Your task to perform on an android device: uninstall "Chime – Mobile Banking" Image 0: 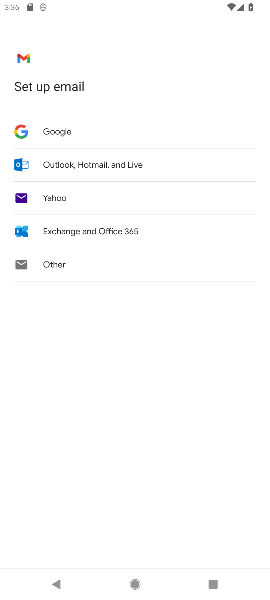
Step 0: press back button
Your task to perform on an android device: uninstall "Chime – Mobile Banking" Image 1: 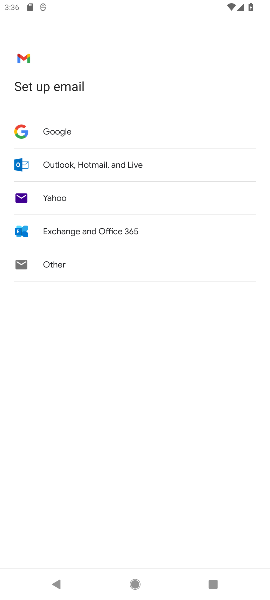
Step 1: press back button
Your task to perform on an android device: uninstall "Chime – Mobile Banking" Image 2: 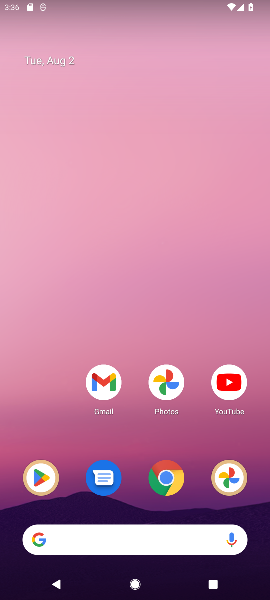
Step 2: drag from (162, 558) to (144, 62)
Your task to perform on an android device: uninstall "Chime – Mobile Banking" Image 3: 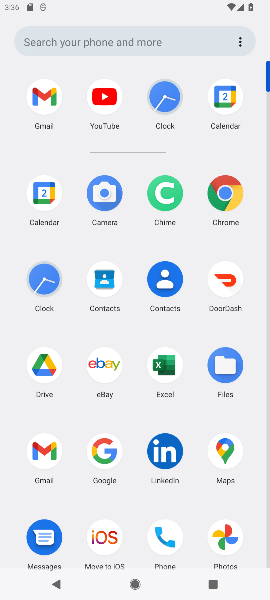
Step 3: drag from (176, 81) to (176, 23)
Your task to perform on an android device: uninstall "Chime – Mobile Banking" Image 4: 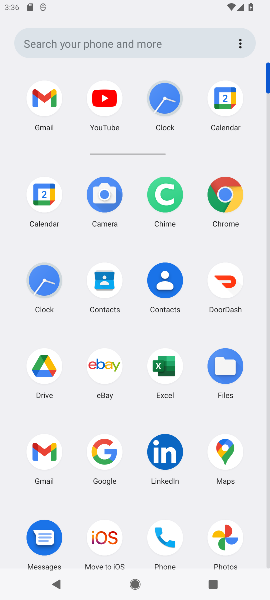
Step 4: drag from (115, 494) to (127, 242)
Your task to perform on an android device: uninstall "Chime – Mobile Banking" Image 5: 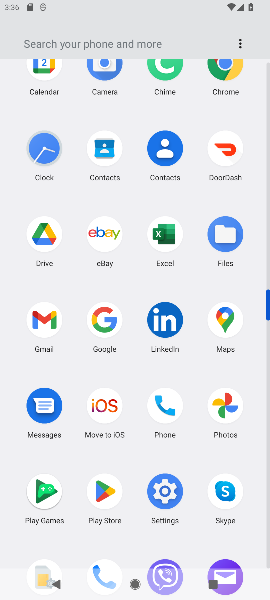
Step 5: drag from (160, 388) to (150, 157)
Your task to perform on an android device: uninstall "Chime – Mobile Banking" Image 6: 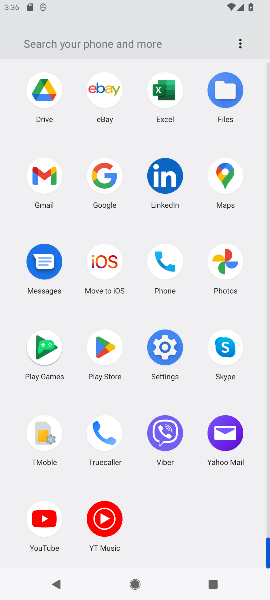
Step 6: click (104, 367)
Your task to perform on an android device: uninstall "Chime – Mobile Banking" Image 7: 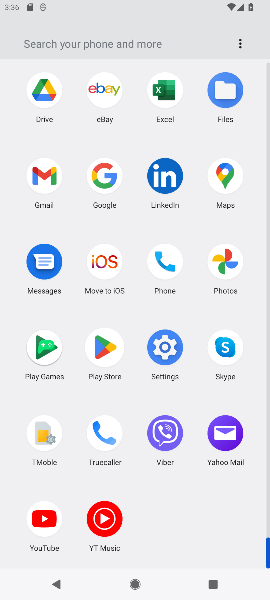
Step 7: click (103, 367)
Your task to perform on an android device: uninstall "Chime – Mobile Banking" Image 8: 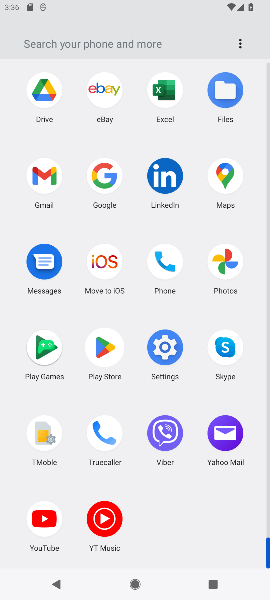
Step 8: click (103, 367)
Your task to perform on an android device: uninstall "Chime – Mobile Banking" Image 9: 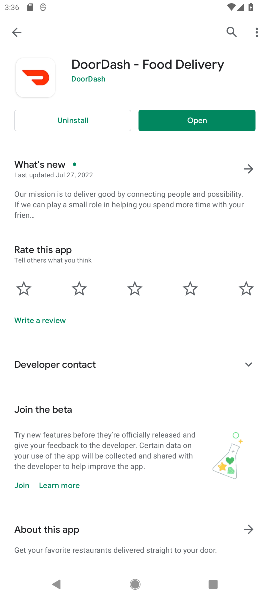
Step 9: click (19, 31)
Your task to perform on an android device: uninstall "Chime – Mobile Banking" Image 10: 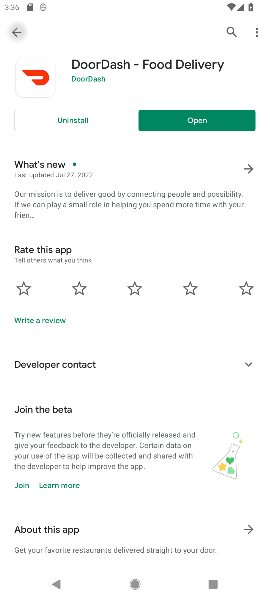
Step 10: click (21, 30)
Your task to perform on an android device: uninstall "Chime – Mobile Banking" Image 11: 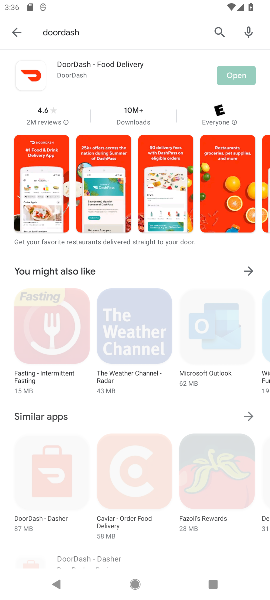
Step 11: click (21, 30)
Your task to perform on an android device: uninstall "Chime – Mobile Banking" Image 12: 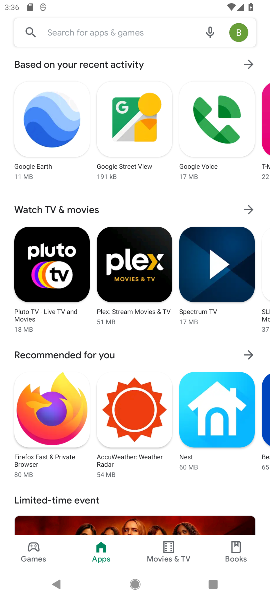
Step 12: click (76, 32)
Your task to perform on an android device: uninstall "Chime – Mobile Banking" Image 13: 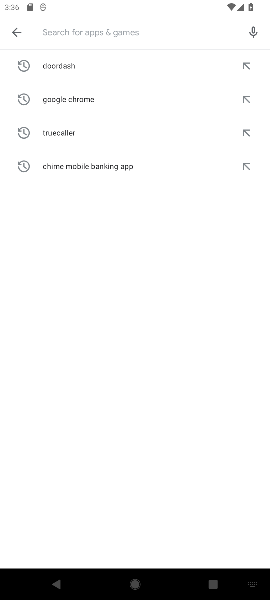
Step 13: click (76, 32)
Your task to perform on an android device: uninstall "Chime – Mobile Banking" Image 14: 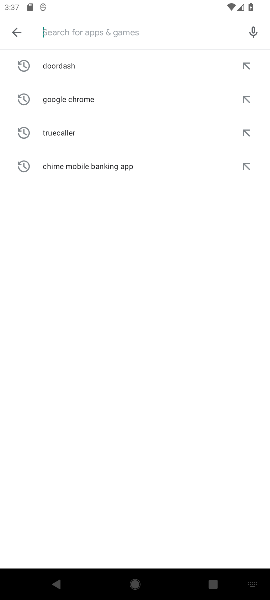
Step 14: type "chime- mobile banking"
Your task to perform on an android device: uninstall "Chime – Mobile Banking" Image 15: 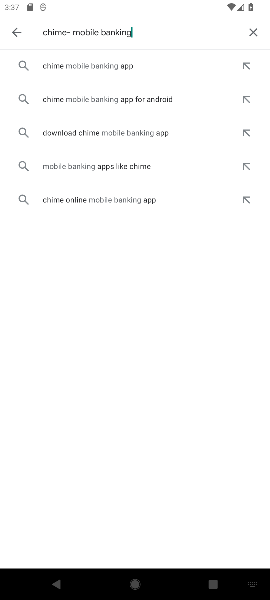
Step 15: click (115, 60)
Your task to perform on an android device: uninstall "Chime – Mobile Banking" Image 16: 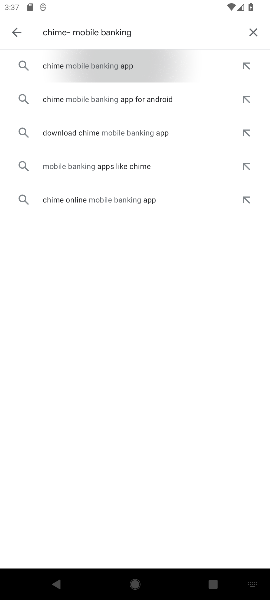
Step 16: click (117, 59)
Your task to perform on an android device: uninstall "Chime – Mobile Banking" Image 17: 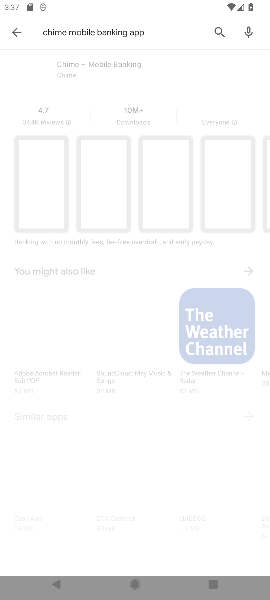
Step 17: click (118, 59)
Your task to perform on an android device: uninstall "Chime – Mobile Banking" Image 18: 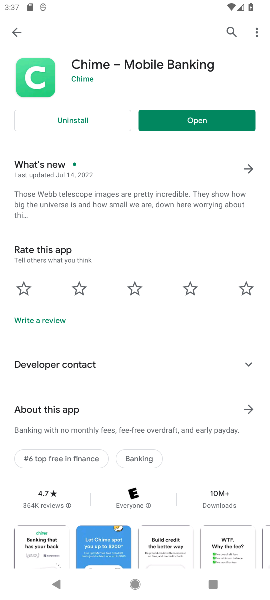
Step 18: click (65, 126)
Your task to perform on an android device: uninstall "Chime – Mobile Banking" Image 19: 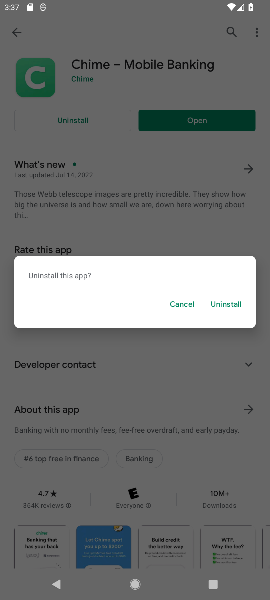
Step 19: click (226, 299)
Your task to perform on an android device: uninstall "Chime – Mobile Banking" Image 20: 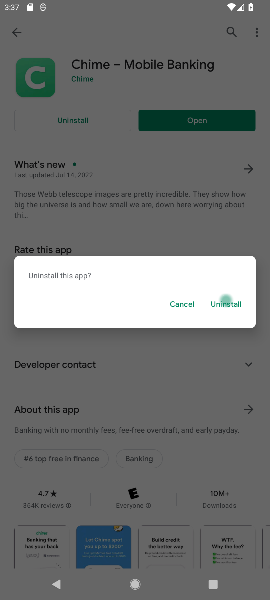
Step 20: click (227, 299)
Your task to perform on an android device: uninstall "Chime – Mobile Banking" Image 21: 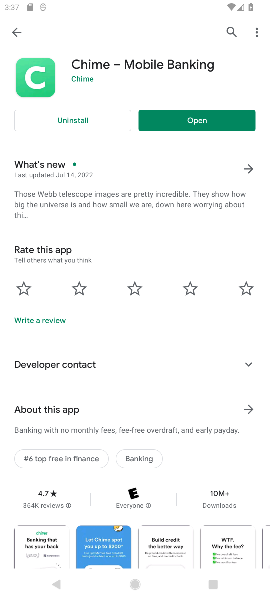
Step 21: click (246, 312)
Your task to perform on an android device: uninstall "Chime – Mobile Banking" Image 22: 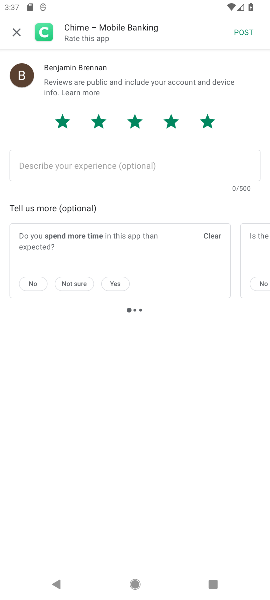
Step 22: task complete